Your task to perform on an android device: Open the phone app and click the voicemail tab. Image 0: 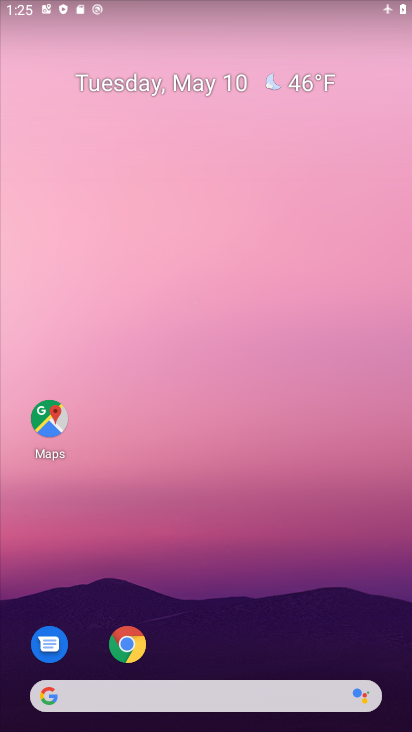
Step 0: drag from (258, 647) to (271, 182)
Your task to perform on an android device: Open the phone app and click the voicemail tab. Image 1: 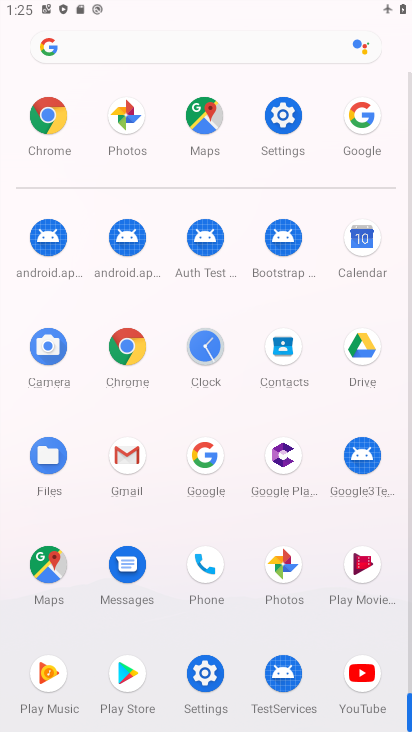
Step 1: click (215, 589)
Your task to perform on an android device: Open the phone app and click the voicemail tab. Image 2: 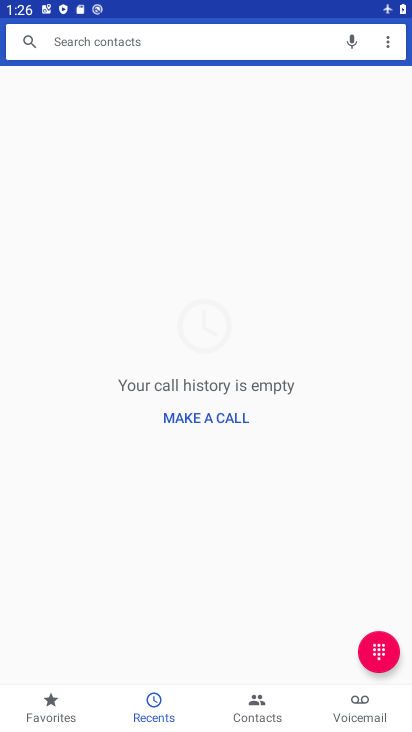
Step 2: click (375, 720)
Your task to perform on an android device: Open the phone app and click the voicemail tab. Image 3: 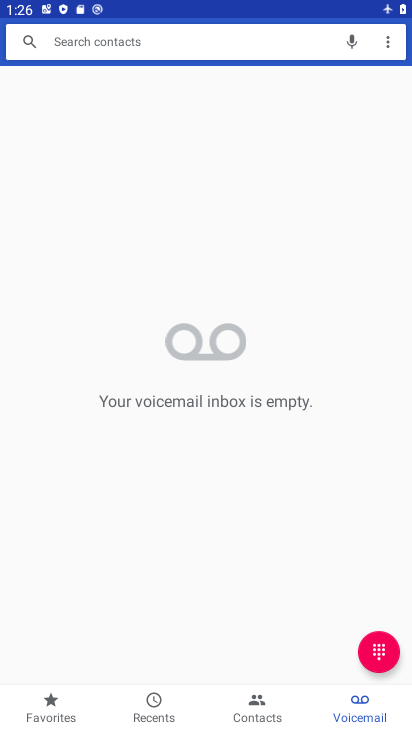
Step 3: task complete